Your task to perform on an android device: delete browsing data in the chrome app Image 0: 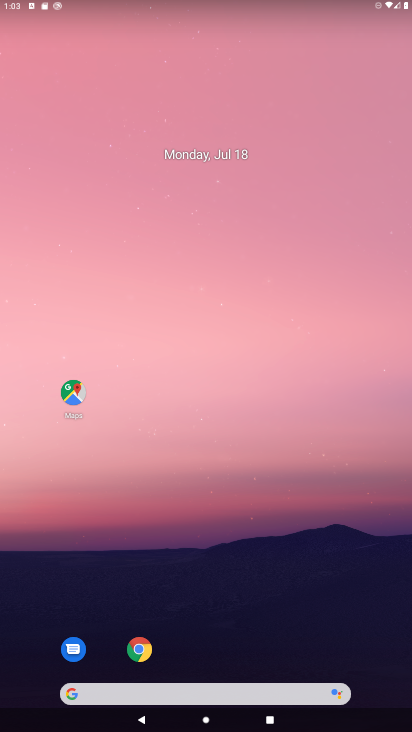
Step 0: click (139, 651)
Your task to perform on an android device: delete browsing data in the chrome app Image 1: 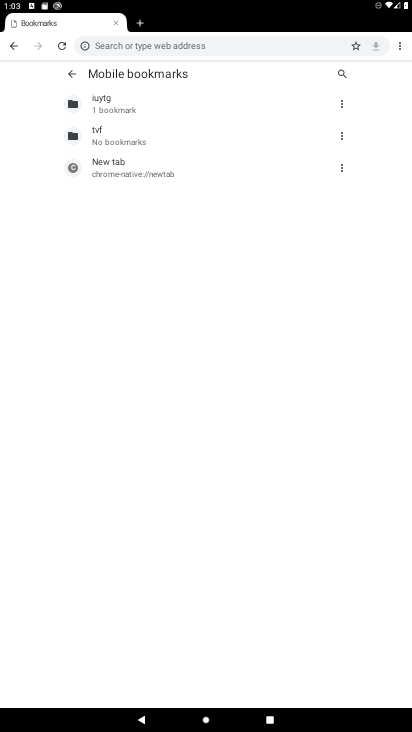
Step 1: click (399, 47)
Your task to perform on an android device: delete browsing data in the chrome app Image 2: 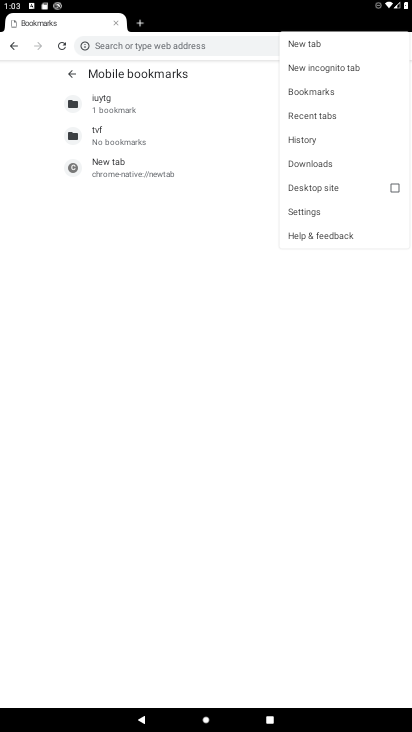
Step 2: click (298, 137)
Your task to perform on an android device: delete browsing data in the chrome app Image 3: 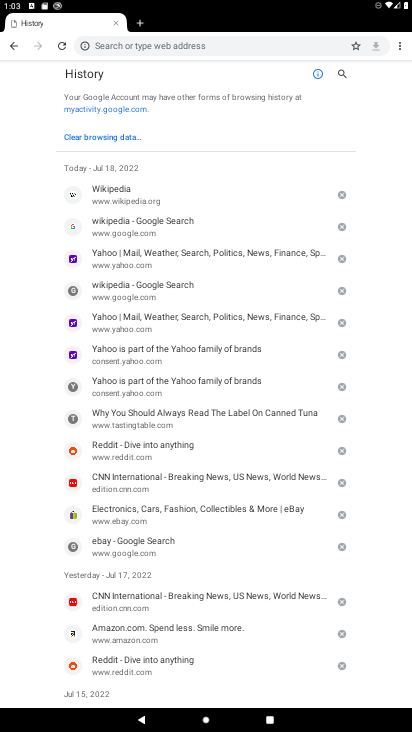
Step 3: click (90, 132)
Your task to perform on an android device: delete browsing data in the chrome app Image 4: 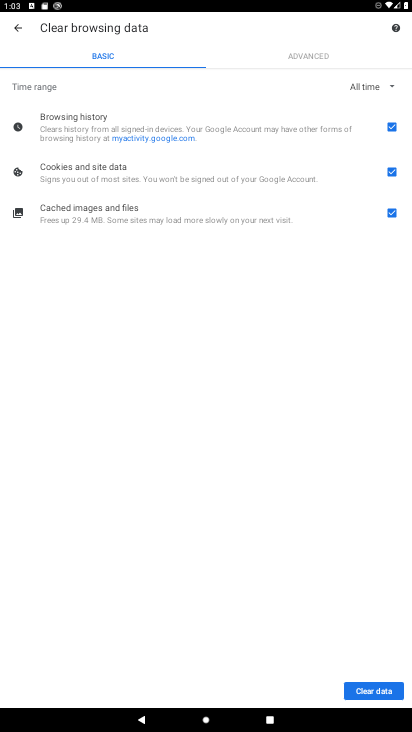
Step 4: click (392, 170)
Your task to perform on an android device: delete browsing data in the chrome app Image 5: 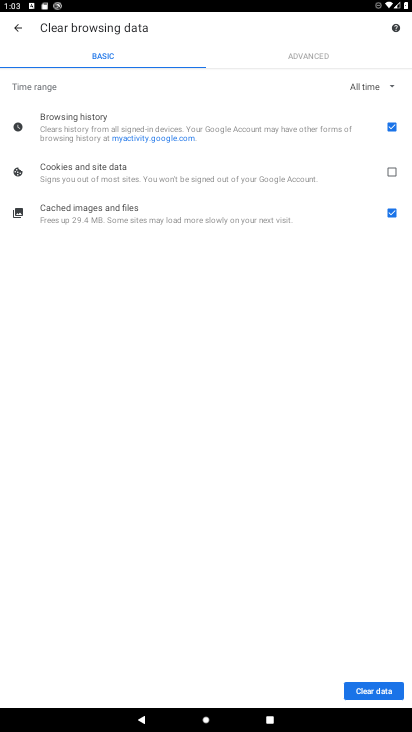
Step 5: click (392, 213)
Your task to perform on an android device: delete browsing data in the chrome app Image 6: 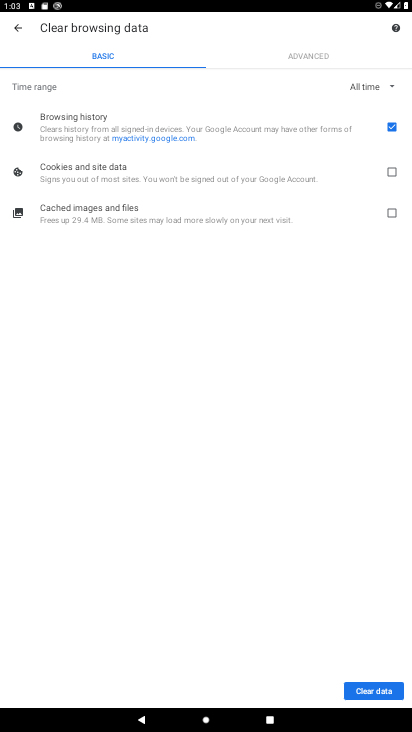
Step 6: click (375, 691)
Your task to perform on an android device: delete browsing data in the chrome app Image 7: 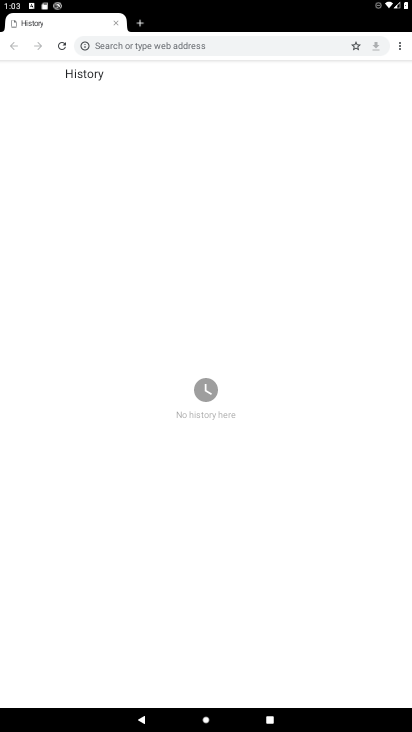
Step 7: task complete